Your task to perform on an android device: delete location history Image 0: 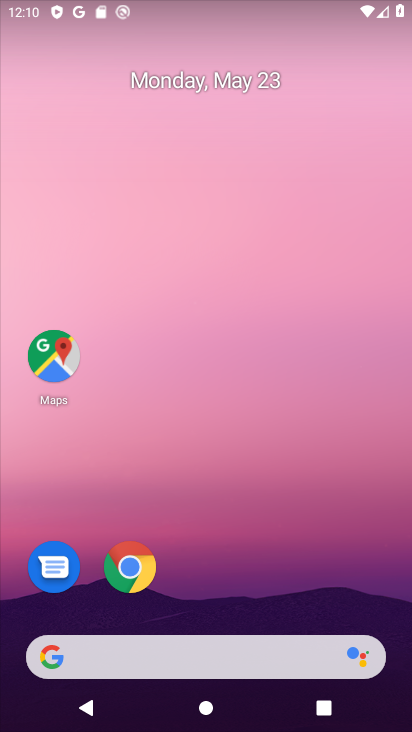
Step 0: drag from (218, 595) to (227, 173)
Your task to perform on an android device: delete location history Image 1: 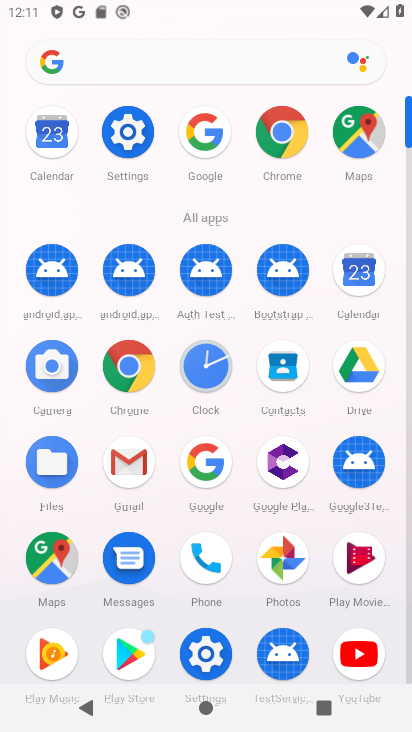
Step 1: click (136, 137)
Your task to perform on an android device: delete location history Image 2: 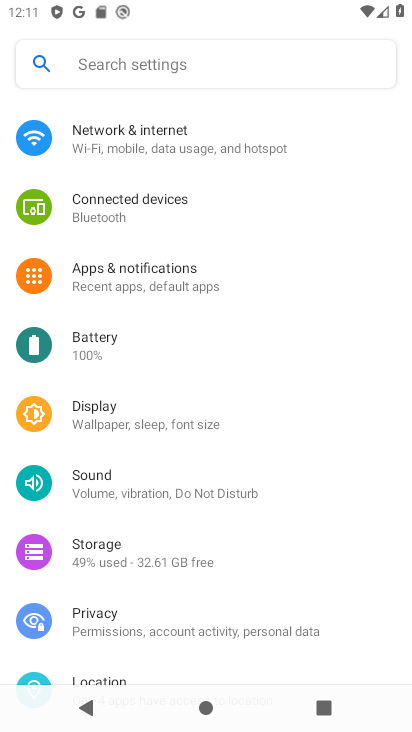
Step 2: press home button
Your task to perform on an android device: delete location history Image 3: 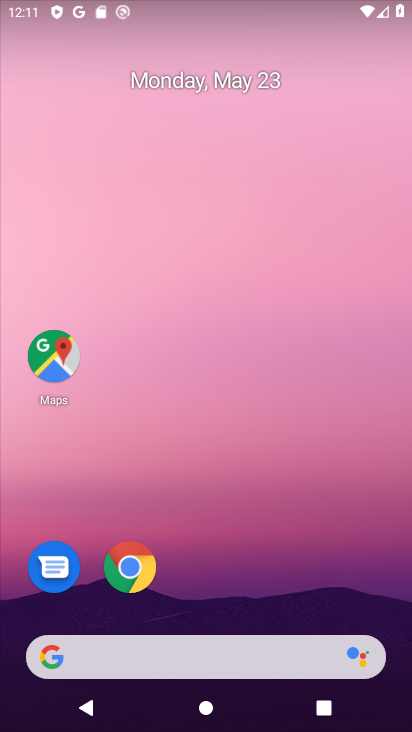
Step 3: click (58, 372)
Your task to perform on an android device: delete location history Image 4: 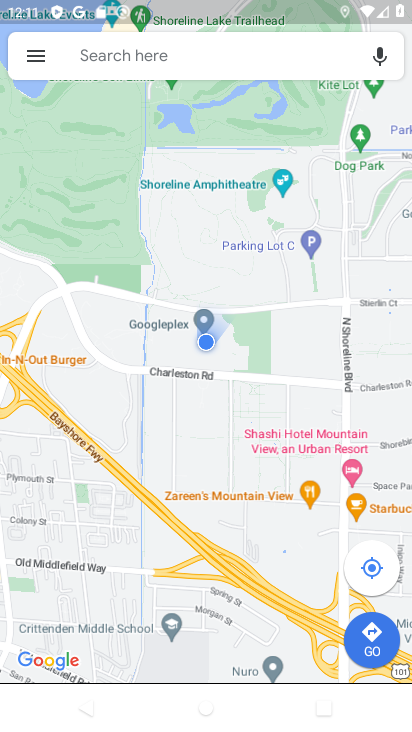
Step 4: click (31, 53)
Your task to perform on an android device: delete location history Image 5: 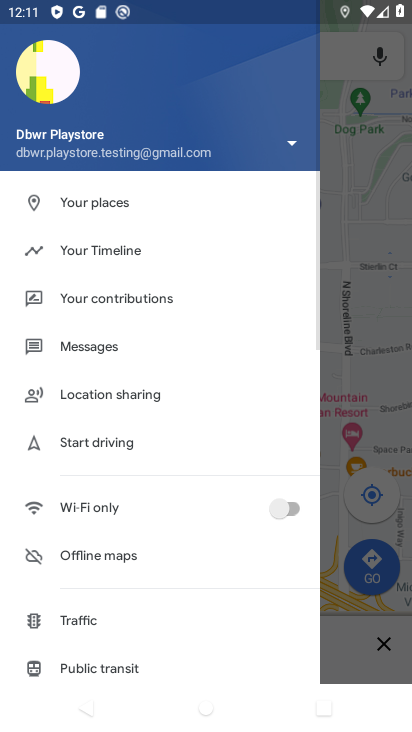
Step 5: click (103, 255)
Your task to perform on an android device: delete location history Image 6: 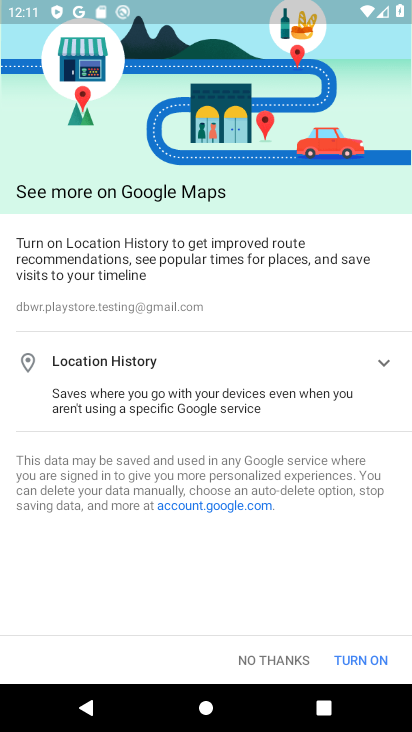
Step 6: click (357, 670)
Your task to perform on an android device: delete location history Image 7: 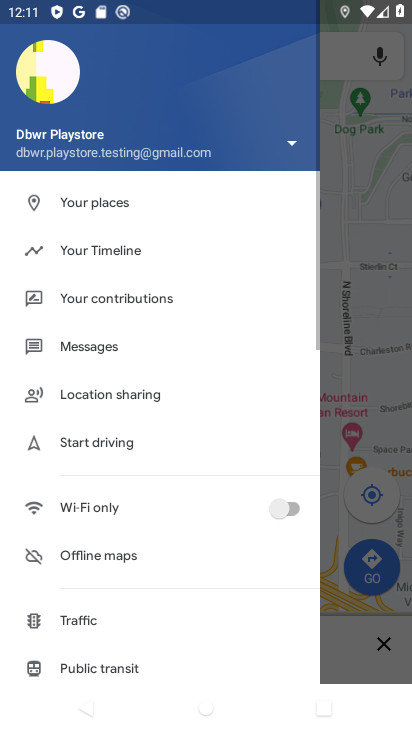
Step 7: click (354, 428)
Your task to perform on an android device: delete location history Image 8: 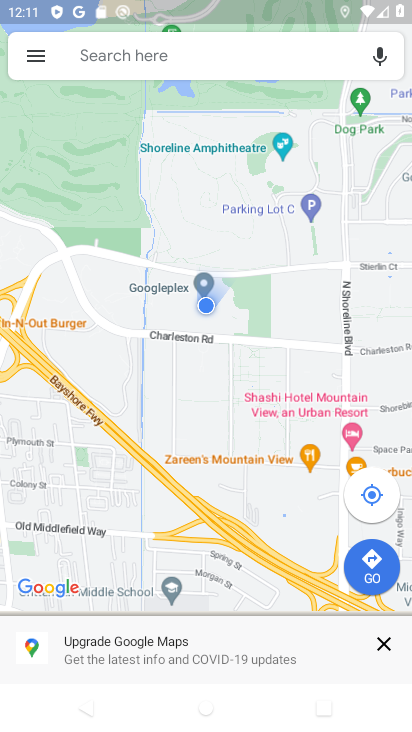
Step 8: click (40, 54)
Your task to perform on an android device: delete location history Image 9: 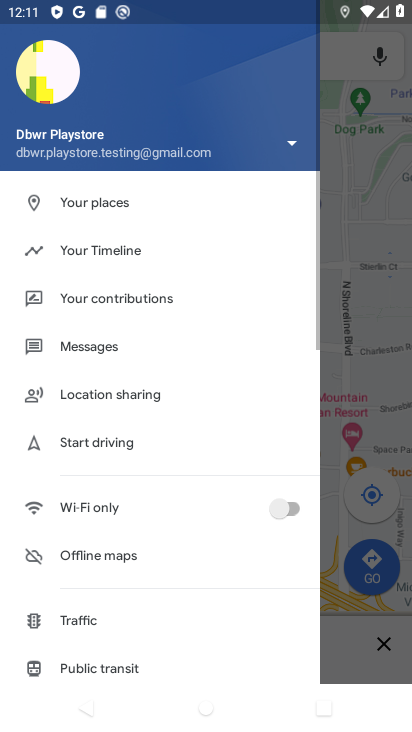
Step 9: click (83, 252)
Your task to perform on an android device: delete location history Image 10: 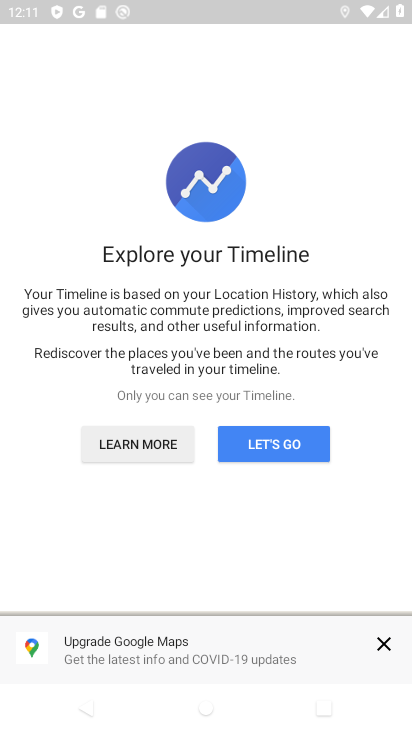
Step 10: click (255, 444)
Your task to perform on an android device: delete location history Image 11: 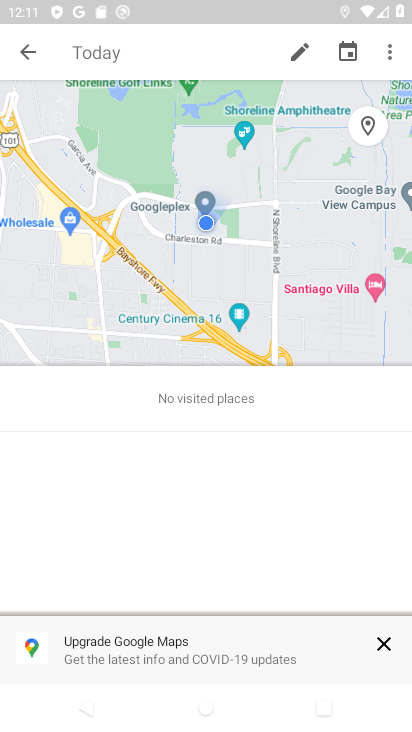
Step 11: click (387, 48)
Your task to perform on an android device: delete location history Image 12: 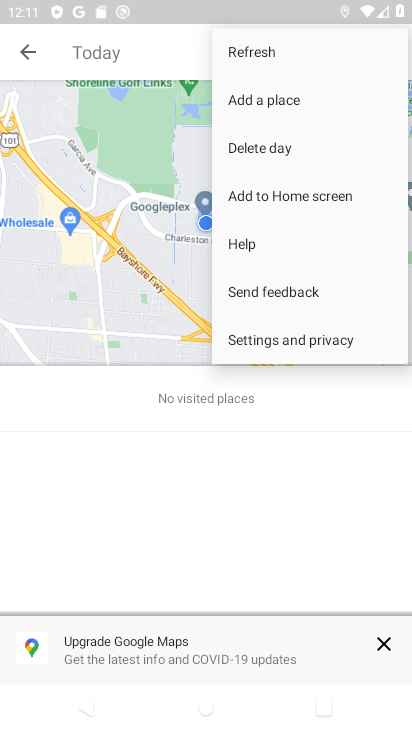
Step 12: click (280, 349)
Your task to perform on an android device: delete location history Image 13: 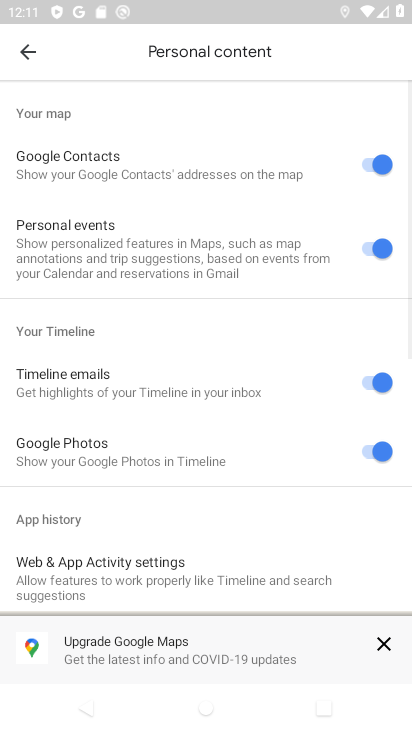
Step 13: drag from (140, 557) to (247, 168)
Your task to perform on an android device: delete location history Image 14: 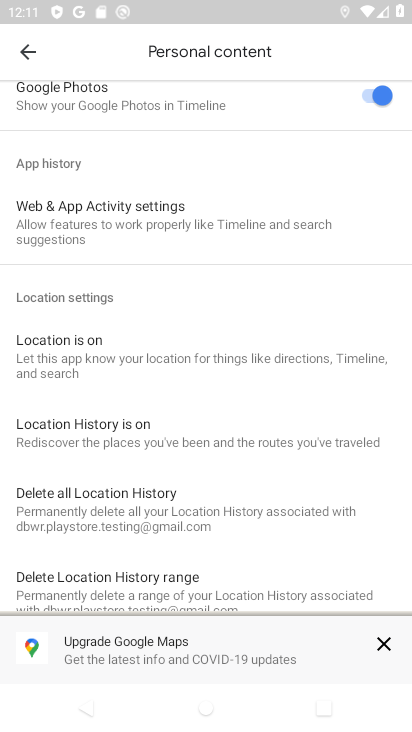
Step 14: click (158, 500)
Your task to perform on an android device: delete location history Image 15: 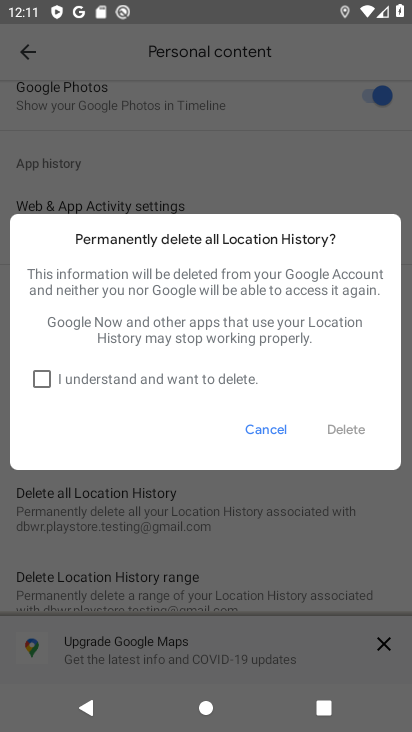
Step 15: click (199, 384)
Your task to perform on an android device: delete location history Image 16: 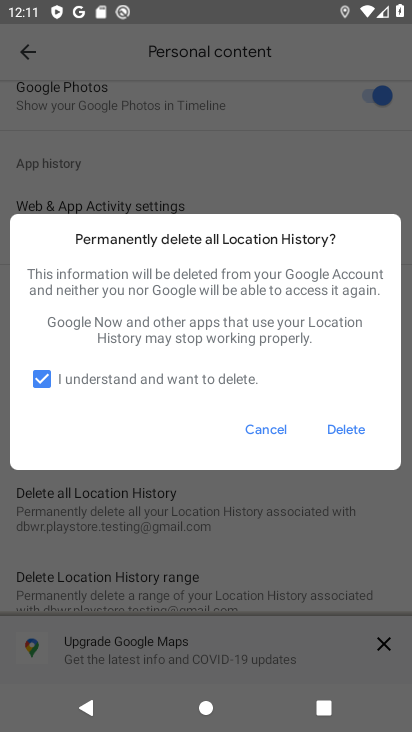
Step 16: click (345, 425)
Your task to perform on an android device: delete location history Image 17: 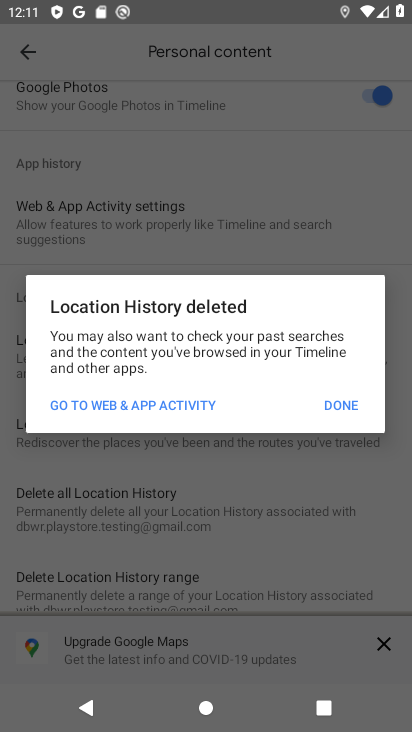
Step 17: task complete